Your task to perform on an android device: turn off airplane mode Image 0: 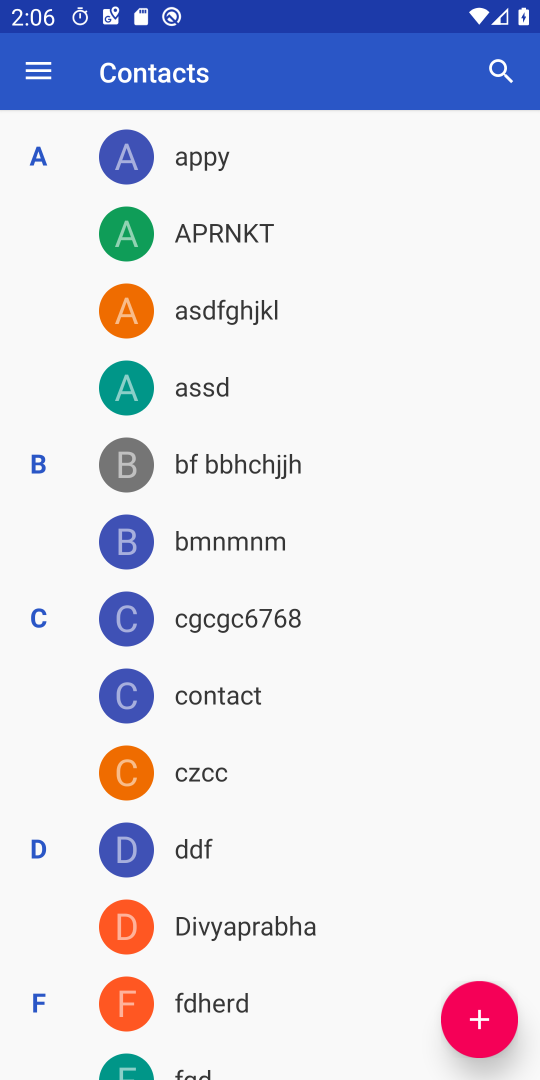
Step 0: press home button
Your task to perform on an android device: turn off airplane mode Image 1: 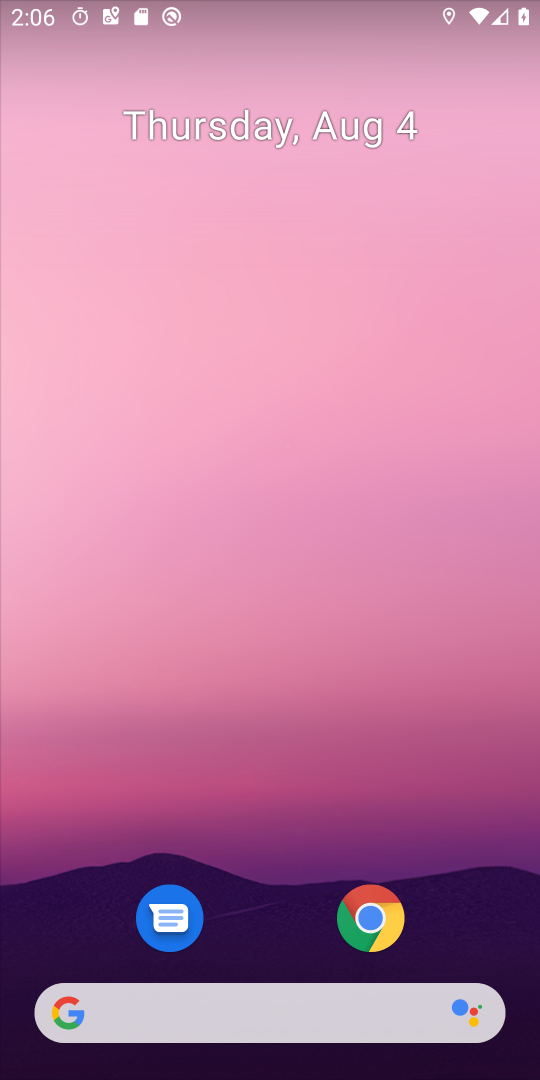
Step 1: drag from (308, 877) to (346, 364)
Your task to perform on an android device: turn off airplane mode Image 2: 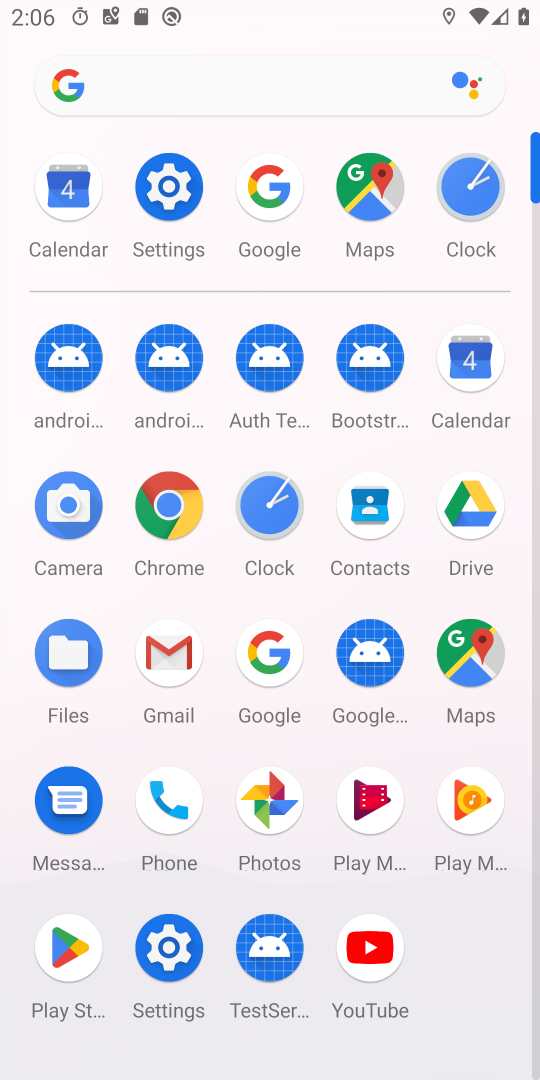
Step 2: click (180, 198)
Your task to perform on an android device: turn off airplane mode Image 3: 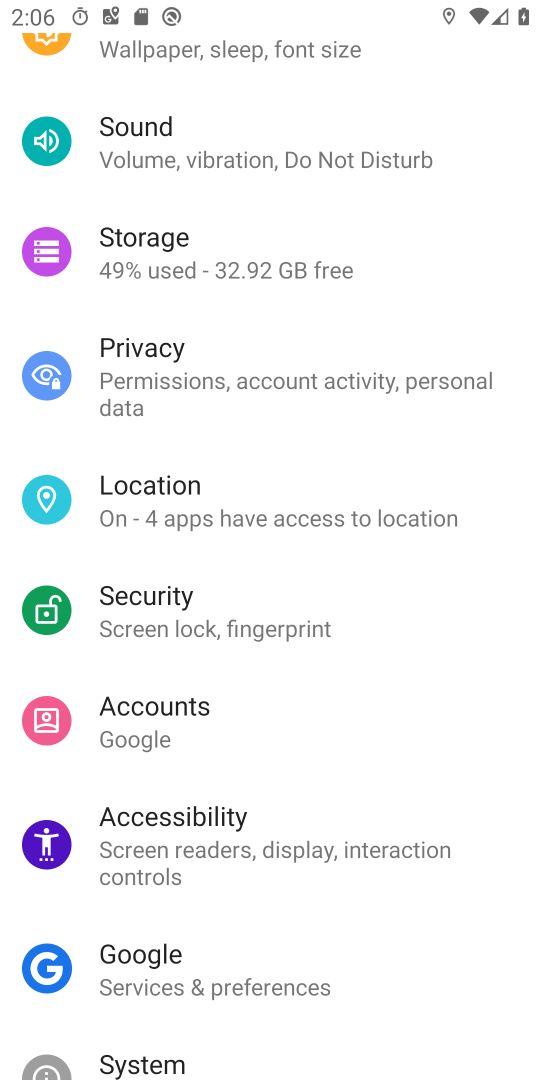
Step 3: drag from (290, 237) to (383, 683)
Your task to perform on an android device: turn off airplane mode Image 4: 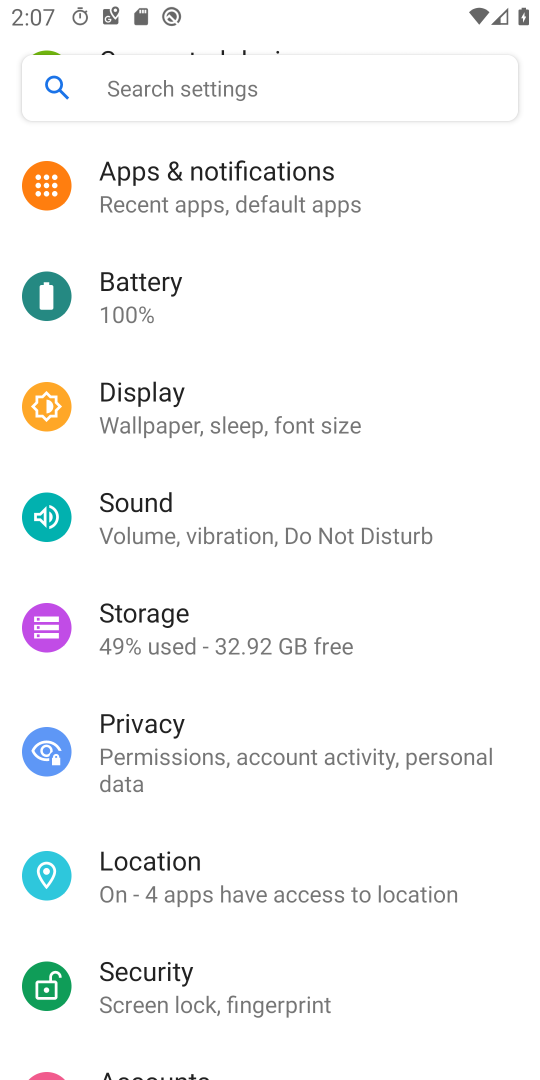
Step 4: drag from (184, 196) to (201, 585)
Your task to perform on an android device: turn off airplane mode Image 5: 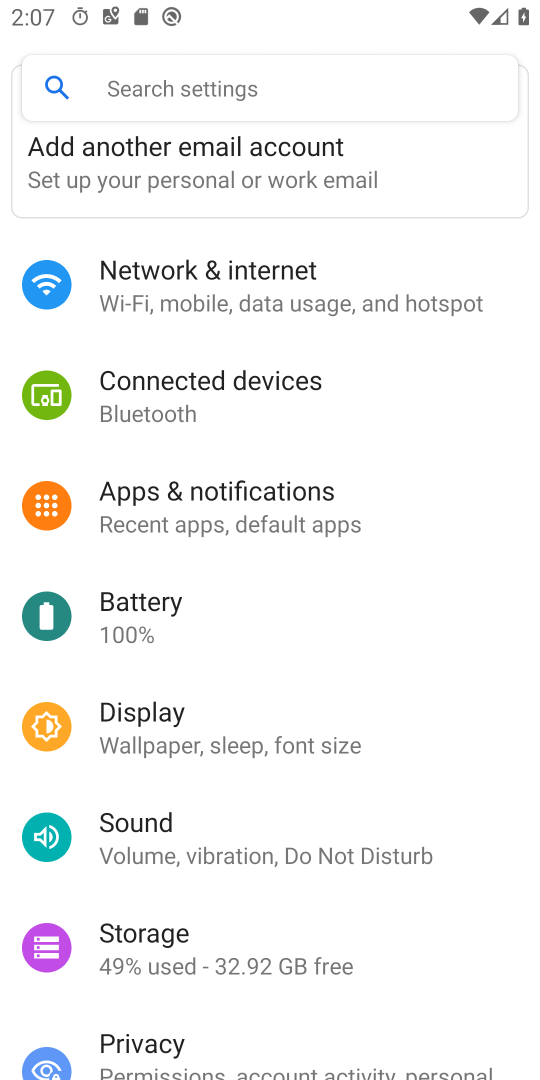
Step 5: click (183, 302)
Your task to perform on an android device: turn off airplane mode Image 6: 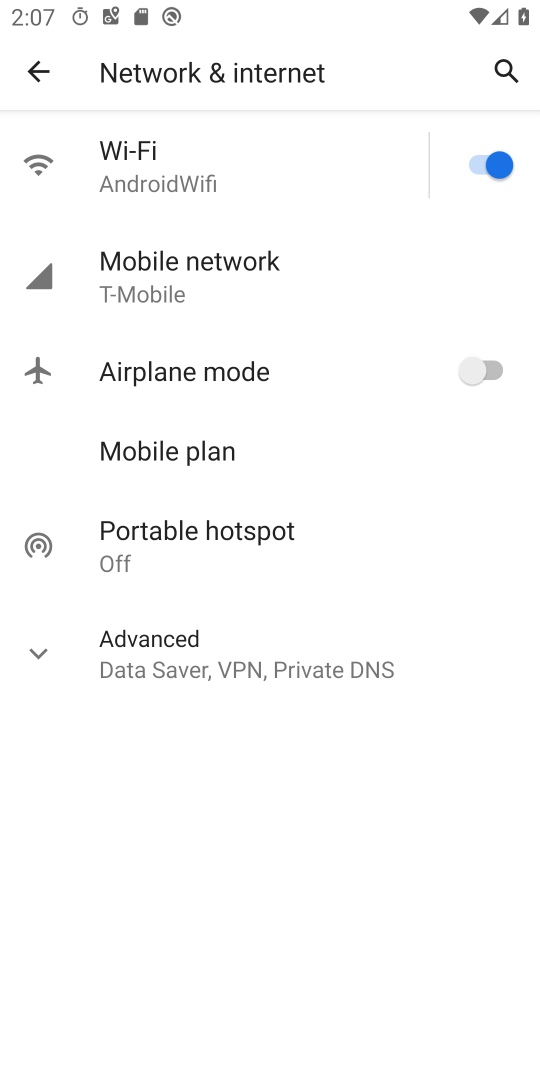
Step 6: task complete